Your task to perform on an android device: toggle airplane mode Image 0: 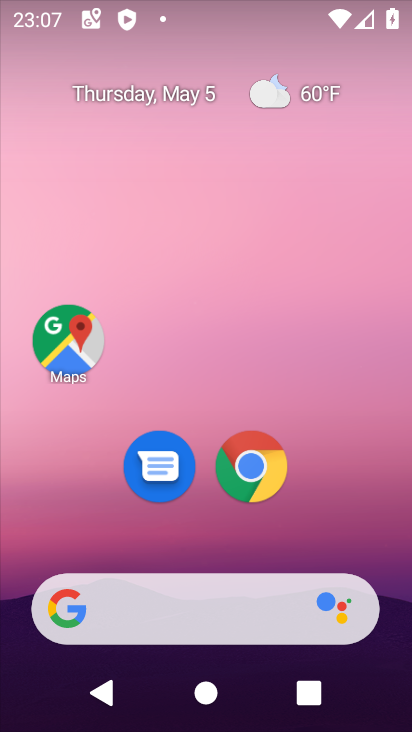
Step 0: drag from (187, 553) to (302, 254)
Your task to perform on an android device: toggle airplane mode Image 1: 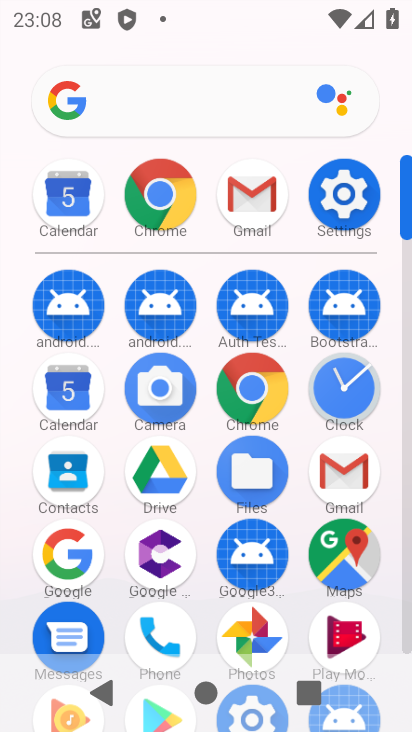
Step 1: click (355, 194)
Your task to perform on an android device: toggle airplane mode Image 2: 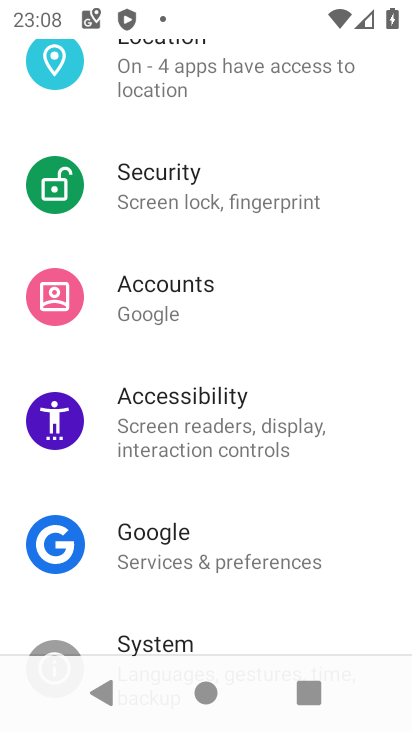
Step 2: drag from (224, 141) to (285, 541)
Your task to perform on an android device: toggle airplane mode Image 3: 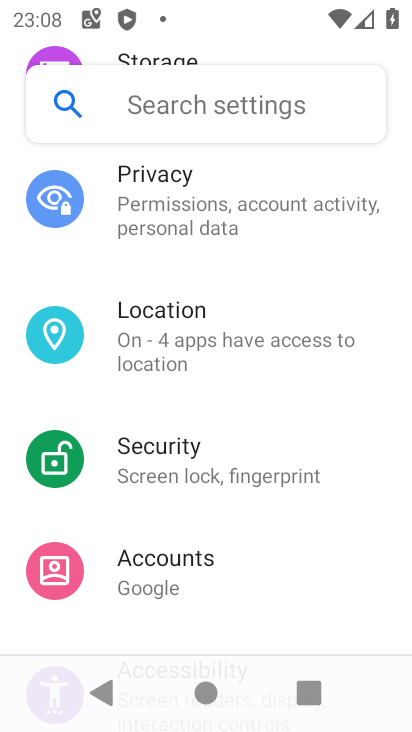
Step 3: drag from (226, 154) to (257, 541)
Your task to perform on an android device: toggle airplane mode Image 4: 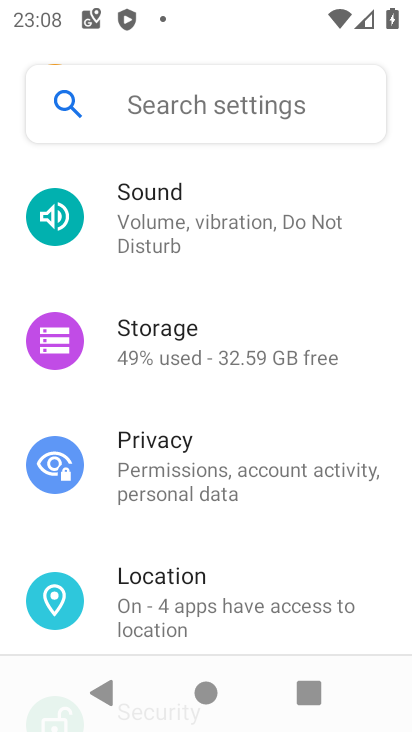
Step 4: drag from (266, 184) to (332, 562)
Your task to perform on an android device: toggle airplane mode Image 5: 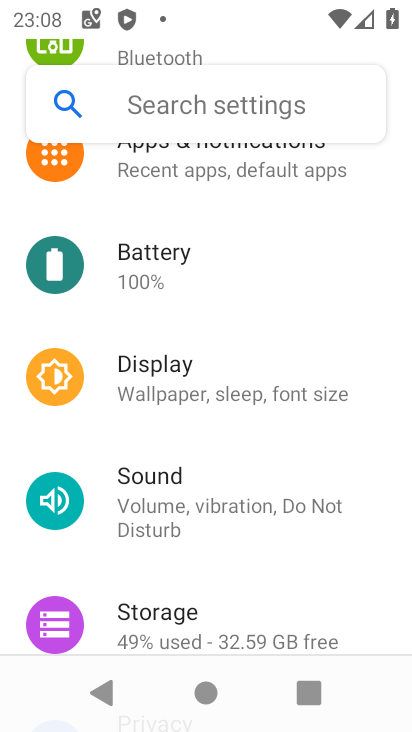
Step 5: drag from (252, 214) to (319, 623)
Your task to perform on an android device: toggle airplane mode Image 6: 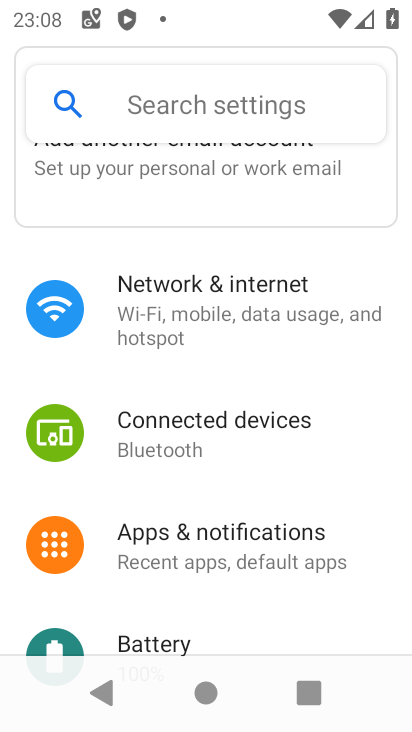
Step 6: click (237, 296)
Your task to perform on an android device: toggle airplane mode Image 7: 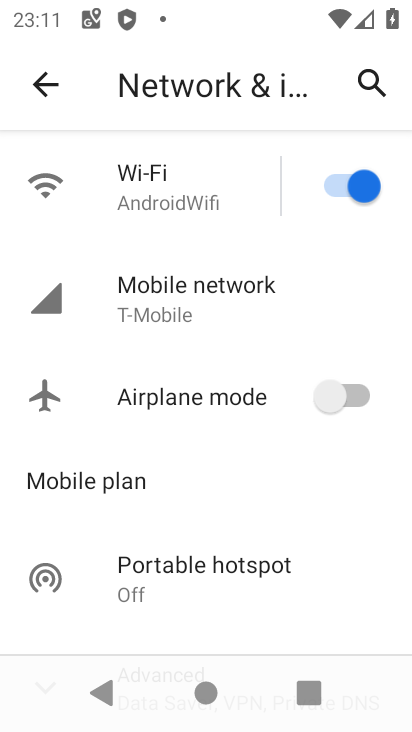
Step 7: click (359, 392)
Your task to perform on an android device: toggle airplane mode Image 8: 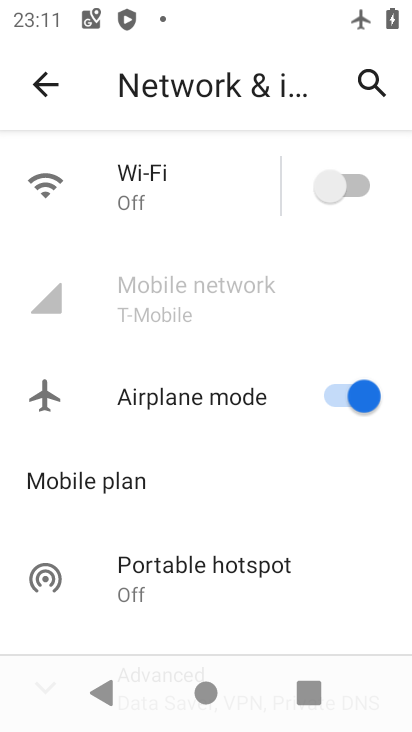
Step 8: task complete